Your task to perform on an android device: Open the stopwatch Image 0: 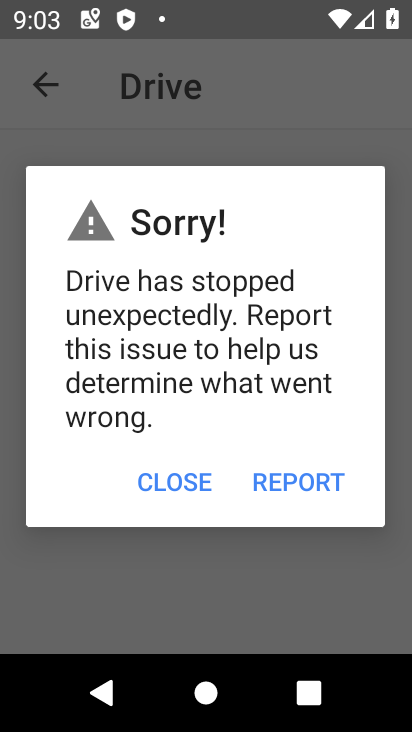
Step 0: press home button
Your task to perform on an android device: Open the stopwatch Image 1: 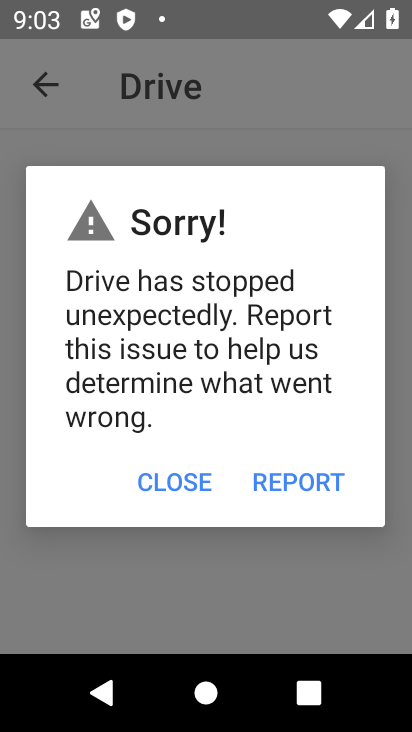
Step 1: drag from (227, 620) to (318, 7)
Your task to perform on an android device: Open the stopwatch Image 2: 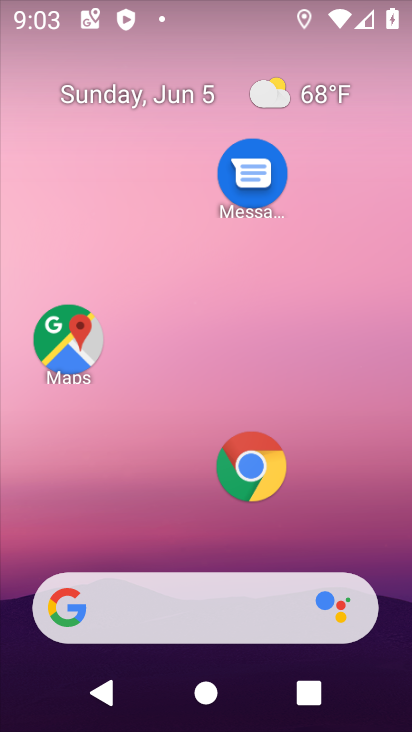
Step 2: drag from (198, 440) to (222, 41)
Your task to perform on an android device: Open the stopwatch Image 3: 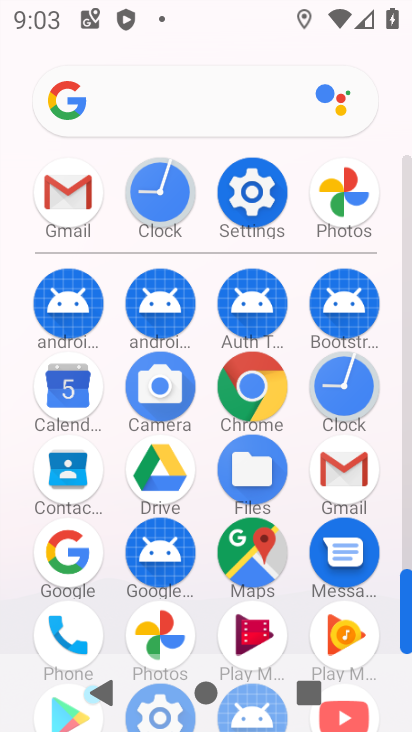
Step 3: click (357, 382)
Your task to perform on an android device: Open the stopwatch Image 4: 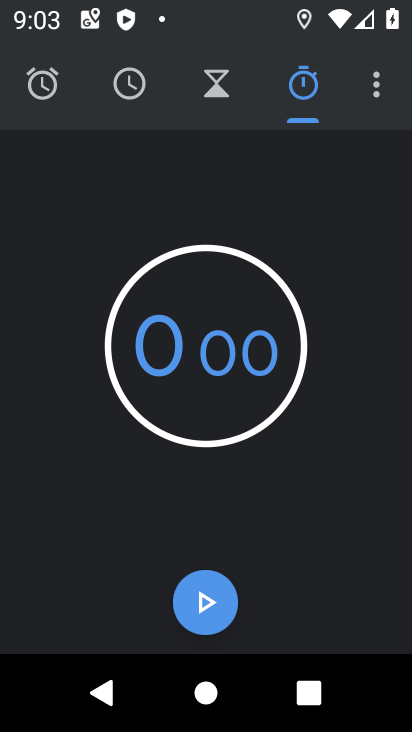
Step 4: click (377, 76)
Your task to perform on an android device: Open the stopwatch Image 5: 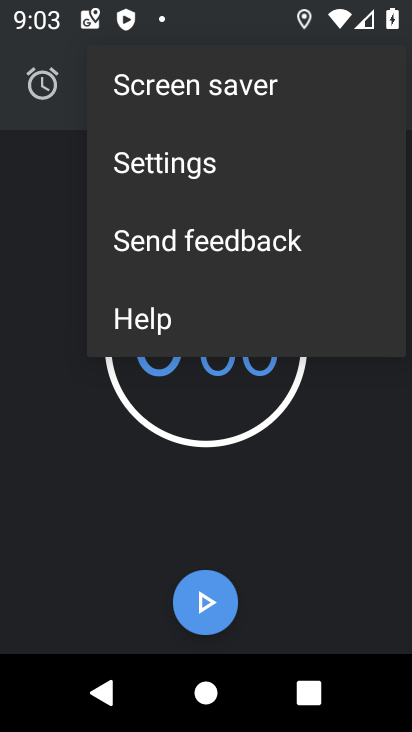
Step 5: click (173, 161)
Your task to perform on an android device: Open the stopwatch Image 6: 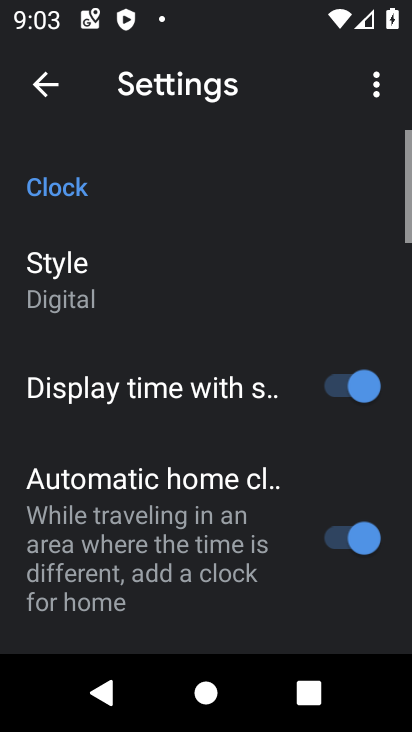
Step 6: drag from (219, 418) to (275, 20)
Your task to perform on an android device: Open the stopwatch Image 7: 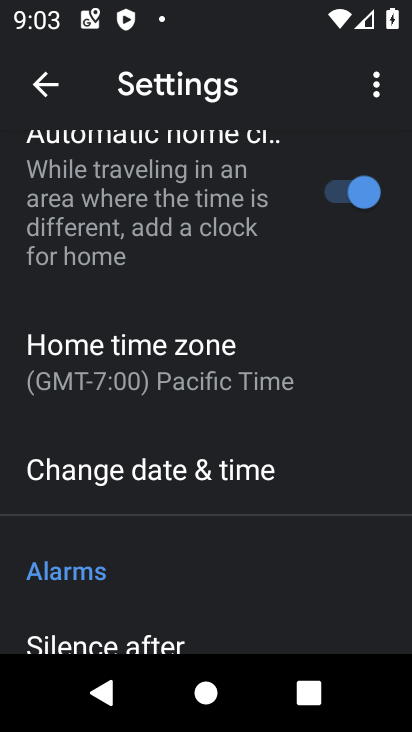
Step 7: click (50, 70)
Your task to perform on an android device: Open the stopwatch Image 8: 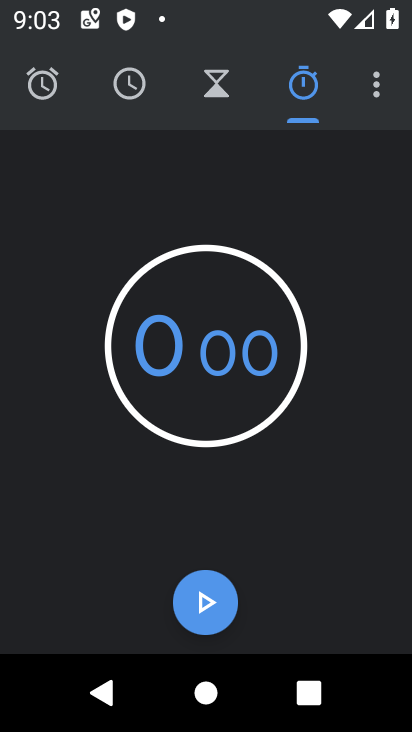
Step 8: click (177, 627)
Your task to perform on an android device: Open the stopwatch Image 9: 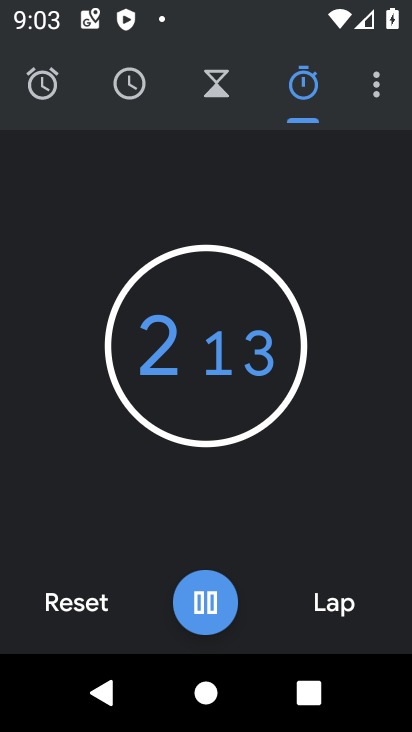
Step 9: task complete